Your task to perform on an android device: set the stopwatch Image 0: 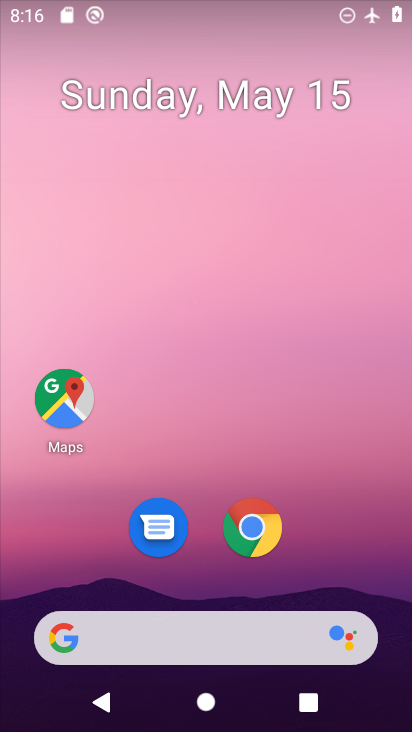
Step 0: drag from (205, 570) to (205, 197)
Your task to perform on an android device: set the stopwatch Image 1: 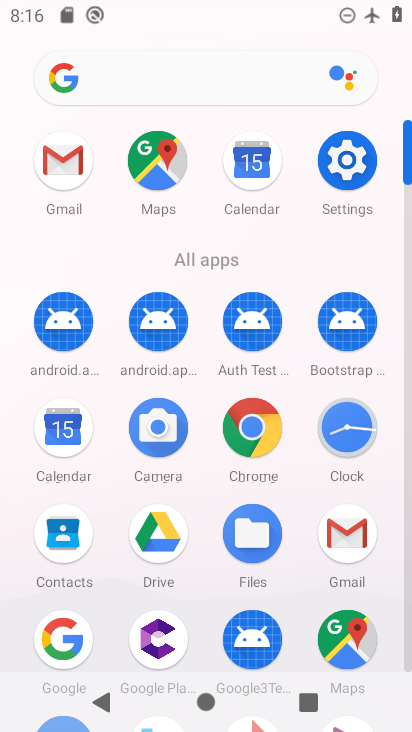
Step 1: click (355, 458)
Your task to perform on an android device: set the stopwatch Image 2: 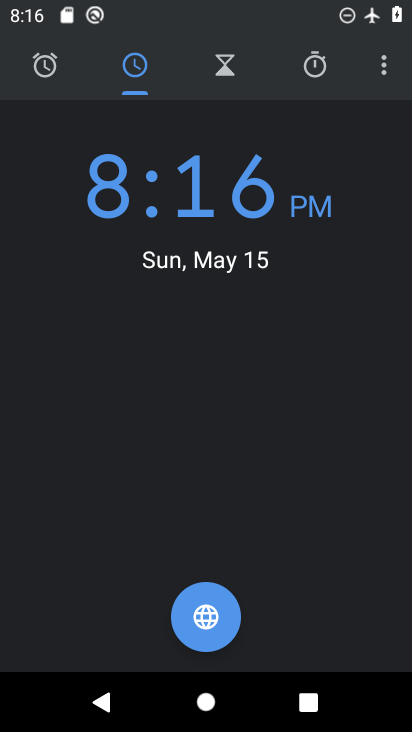
Step 2: click (303, 79)
Your task to perform on an android device: set the stopwatch Image 3: 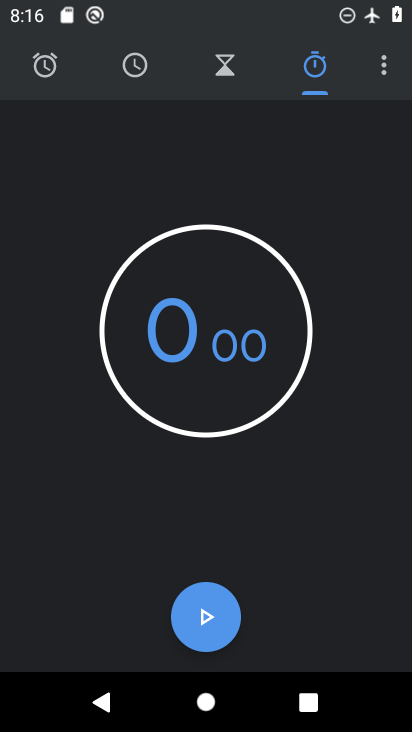
Step 3: click (190, 615)
Your task to perform on an android device: set the stopwatch Image 4: 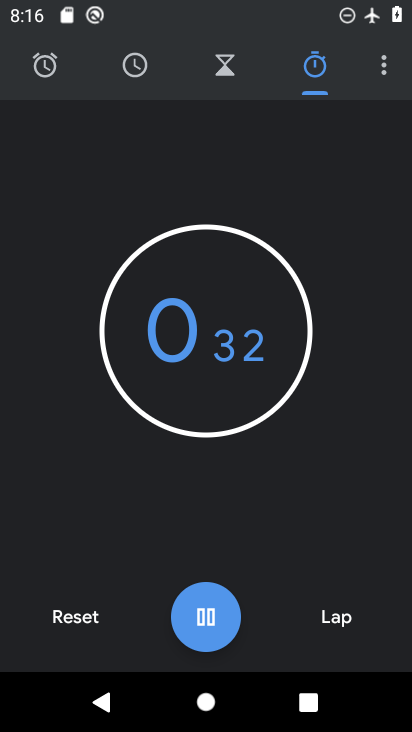
Step 4: task complete